Your task to perform on an android device: Search for Mexican restaurants on Maps Image 0: 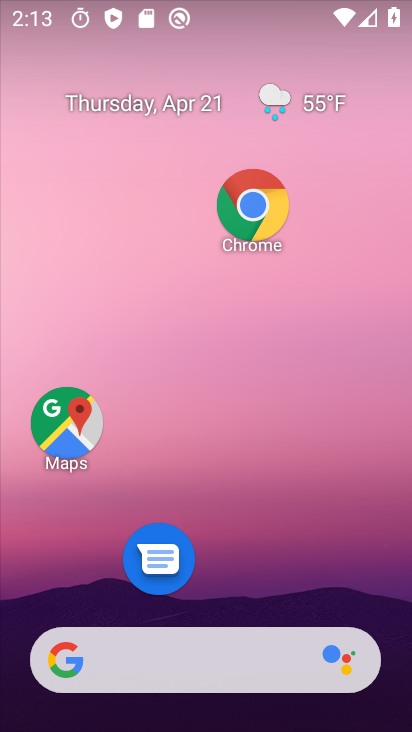
Step 0: click (79, 438)
Your task to perform on an android device: Search for Mexican restaurants on Maps Image 1: 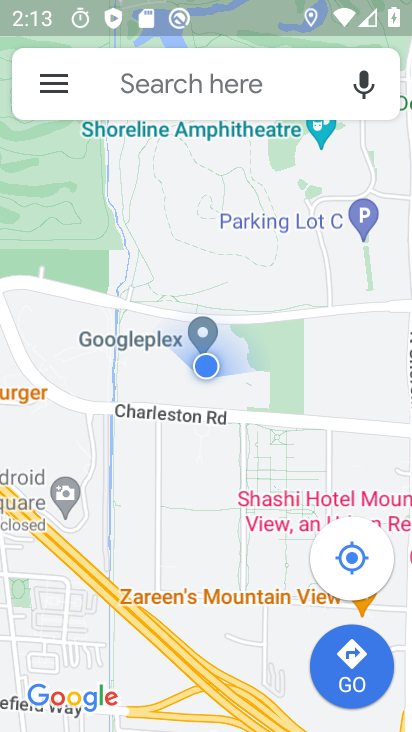
Step 1: click (151, 63)
Your task to perform on an android device: Search for Mexican restaurants on Maps Image 2: 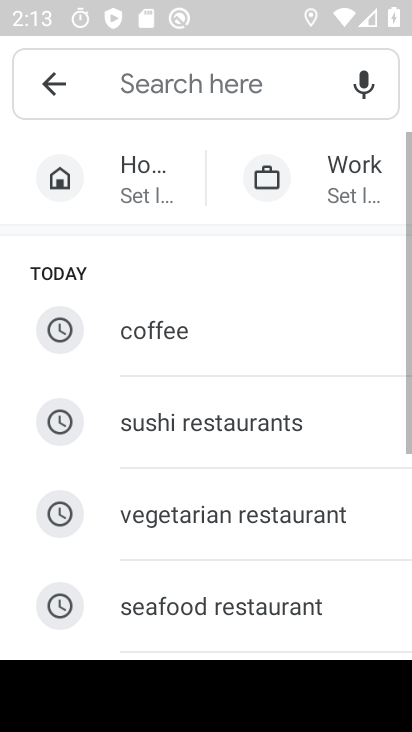
Step 2: drag from (202, 521) to (180, 103)
Your task to perform on an android device: Search for Mexican restaurants on Maps Image 3: 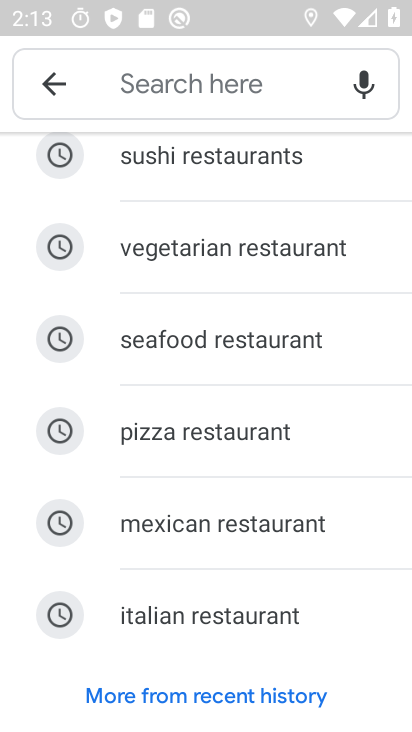
Step 3: click (198, 512)
Your task to perform on an android device: Search for Mexican restaurants on Maps Image 4: 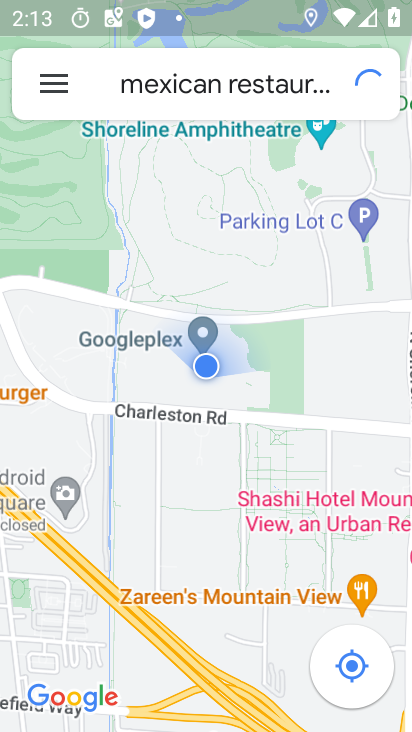
Step 4: task complete